Your task to perform on an android device: open app "Expedia: Hotels, Flights & Car" (install if not already installed) Image 0: 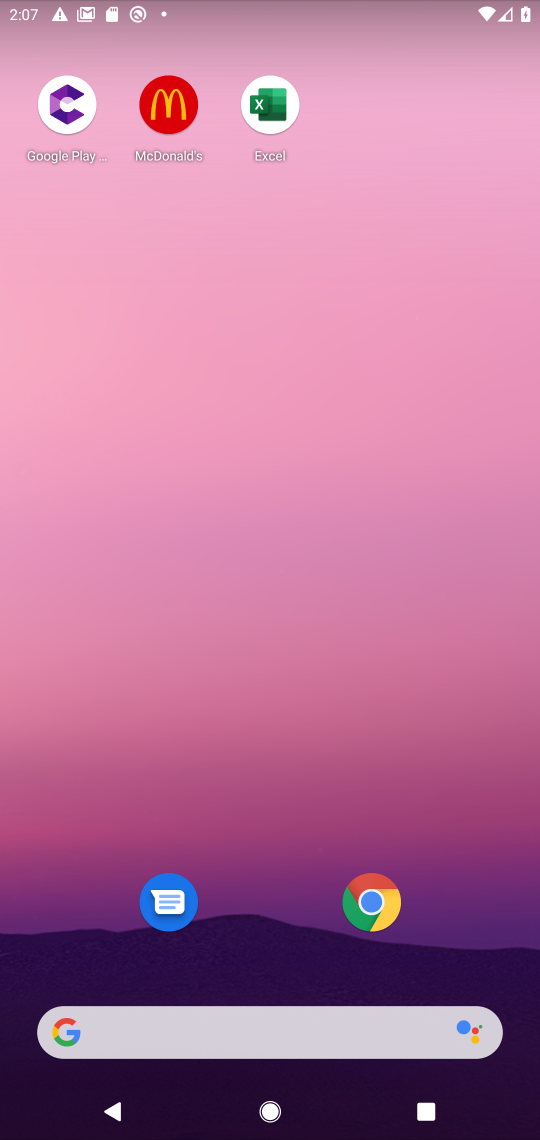
Step 0: drag from (237, 1025) to (237, 383)
Your task to perform on an android device: open app "Expedia: Hotels, Flights & Car" (install if not already installed) Image 1: 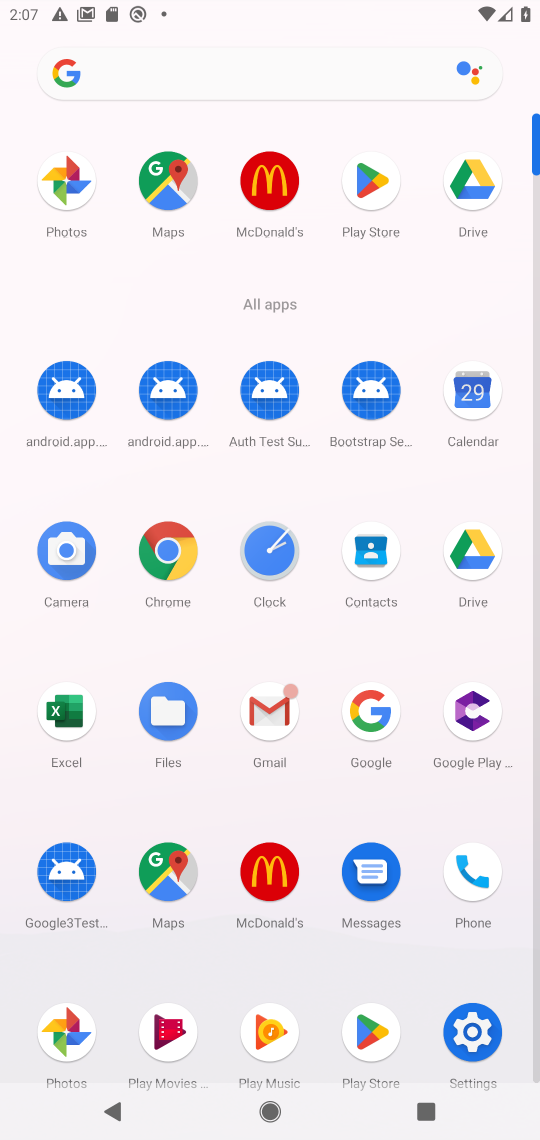
Step 1: click (368, 181)
Your task to perform on an android device: open app "Expedia: Hotels, Flights & Car" (install if not already installed) Image 2: 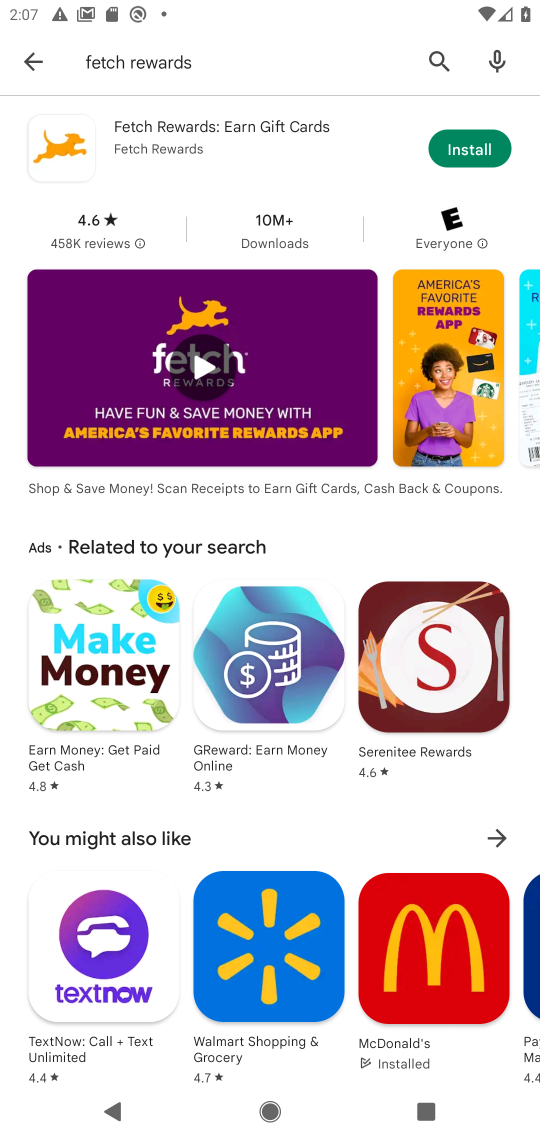
Step 2: click (439, 50)
Your task to perform on an android device: open app "Expedia: Hotels, Flights & Car" (install if not already installed) Image 3: 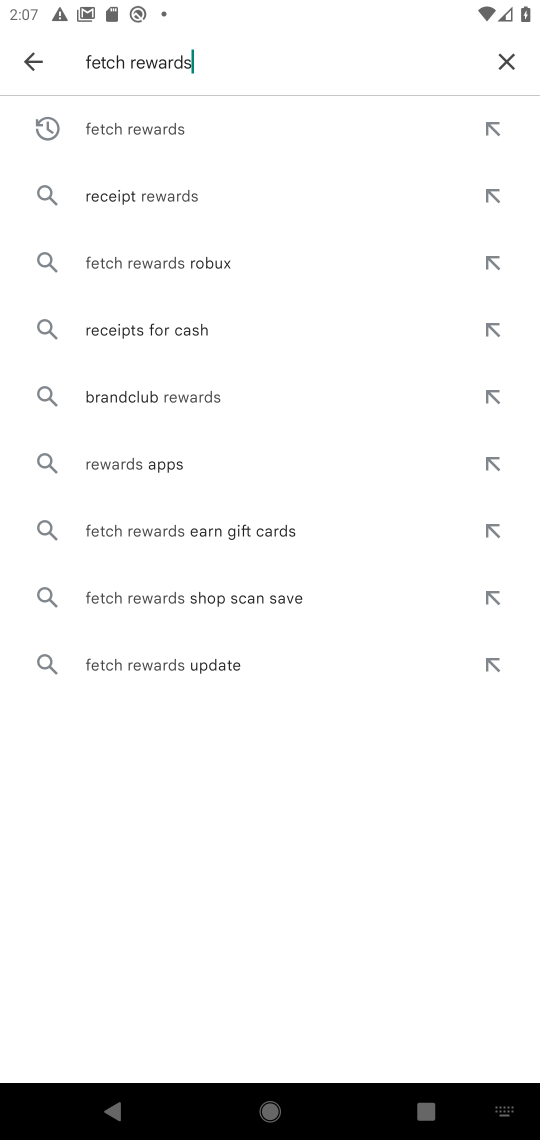
Step 3: type "Expedia: Hotels, Flights & Car"
Your task to perform on an android device: open app "Expedia: Hotels, Flights & Car" (install if not already installed) Image 4: 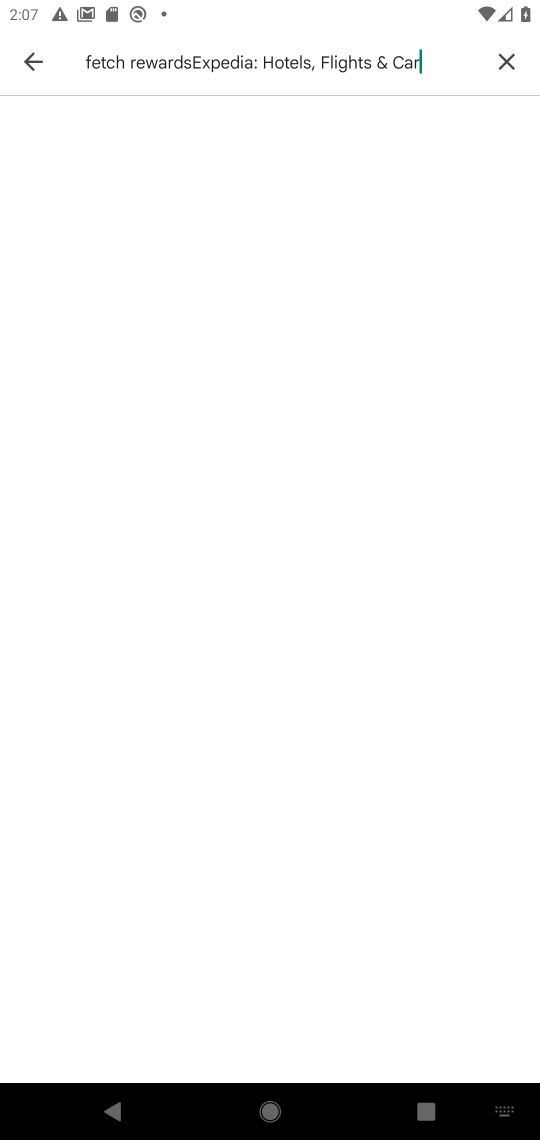
Step 4: click (237, 65)
Your task to perform on an android device: open app "Expedia: Hotels, Flights & Car" (install if not already installed) Image 5: 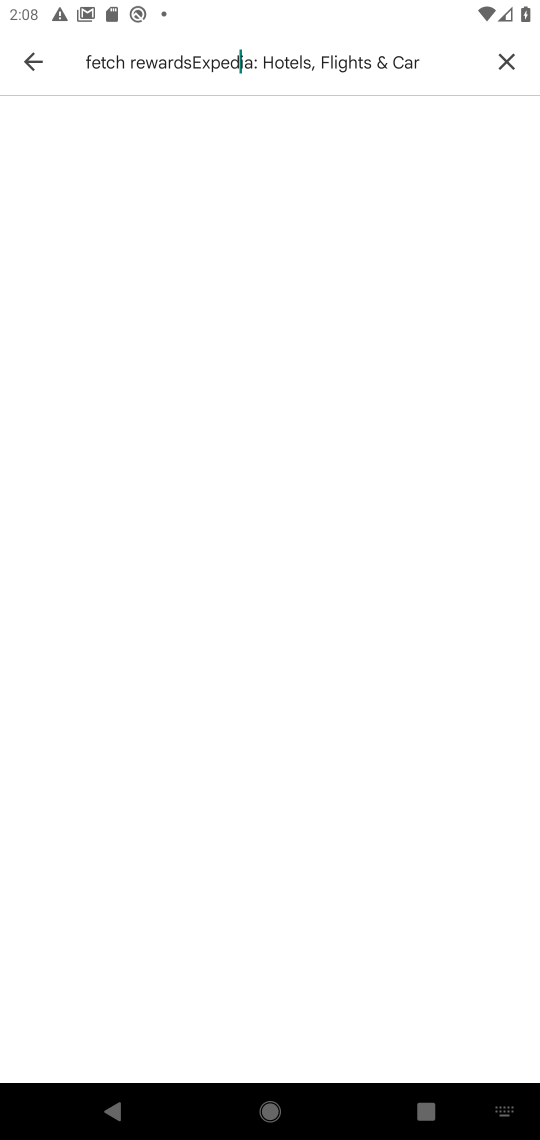
Step 5: click (511, 62)
Your task to perform on an android device: open app "Expedia: Hotels, Flights & Car" (install if not already installed) Image 6: 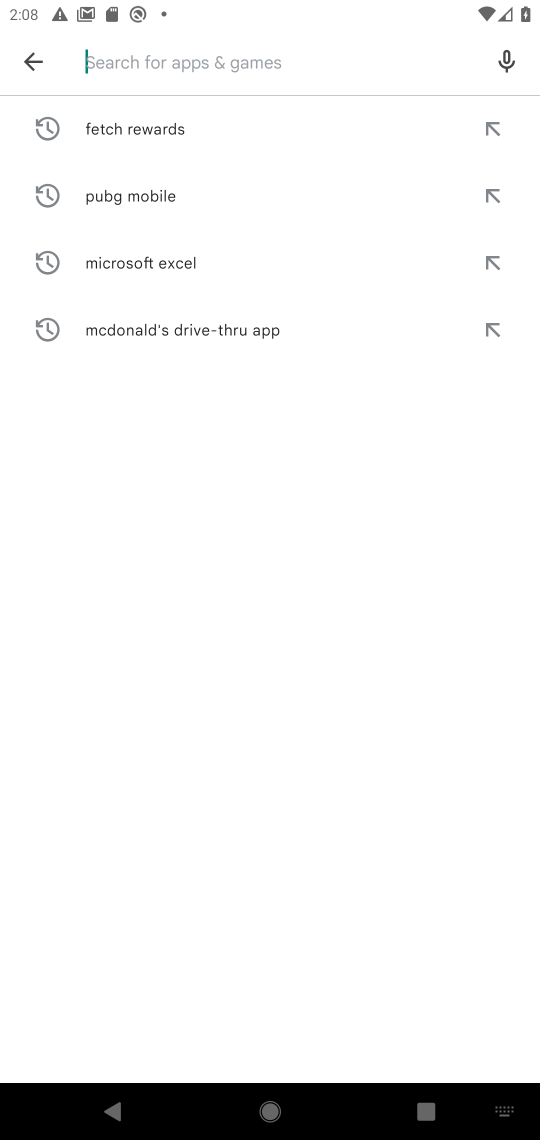
Step 6: type "Expedia: Hotels, Flights & Car"
Your task to perform on an android device: open app "Expedia: Hotels, Flights & Car" (install if not already installed) Image 7: 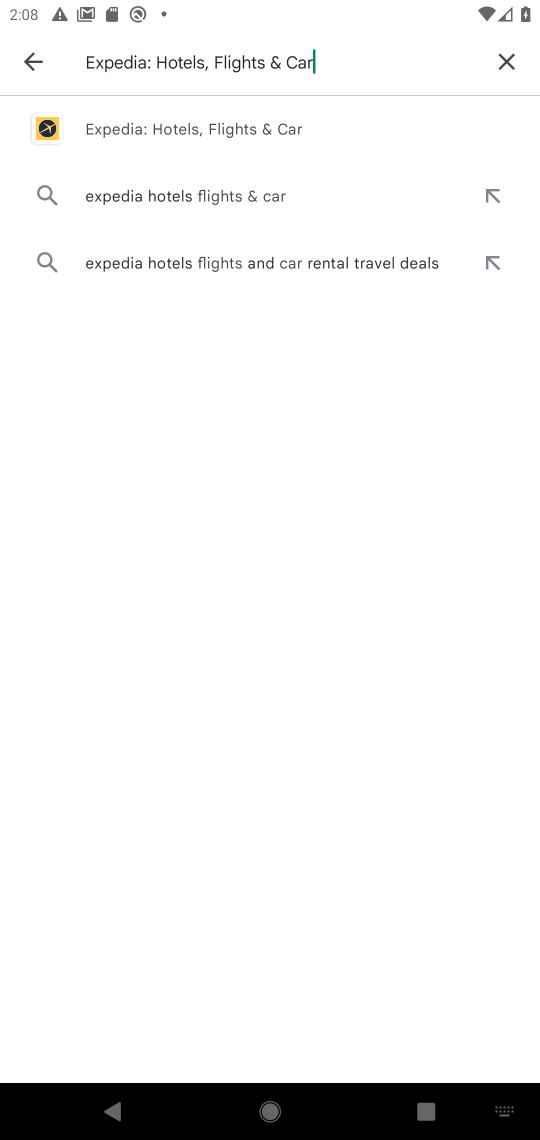
Step 7: click (120, 134)
Your task to perform on an android device: open app "Expedia: Hotels, Flights & Car" (install if not already installed) Image 8: 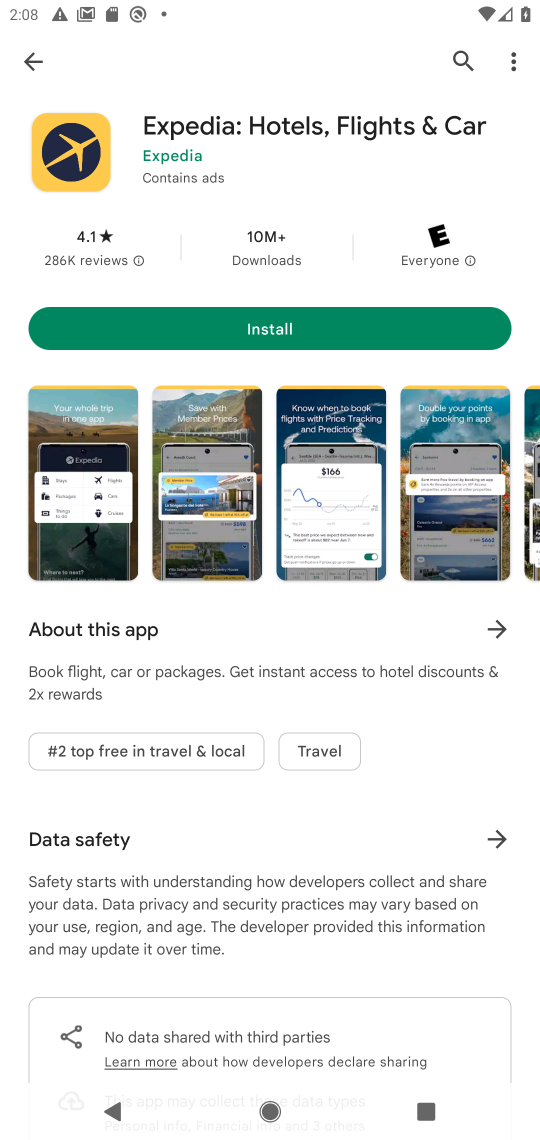
Step 8: click (293, 325)
Your task to perform on an android device: open app "Expedia: Hotels, Flights & Car" (install if not already installed) Image 9: 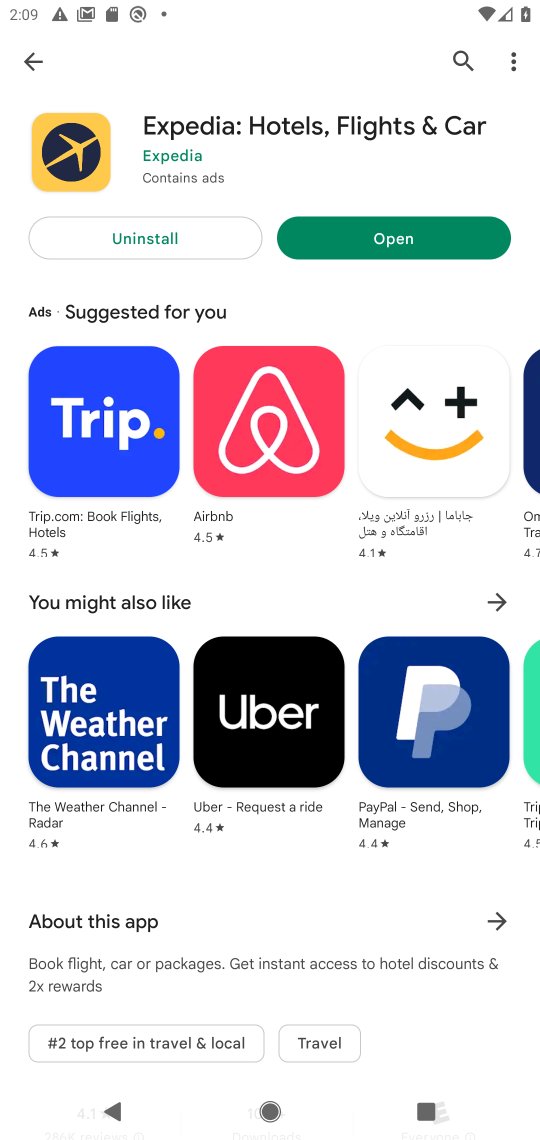
Step 9: click (376, 231)
Your task to perform on an android device: open app "Expedia: Hotels, Flights & Car" (install if not already installed) Image 10: 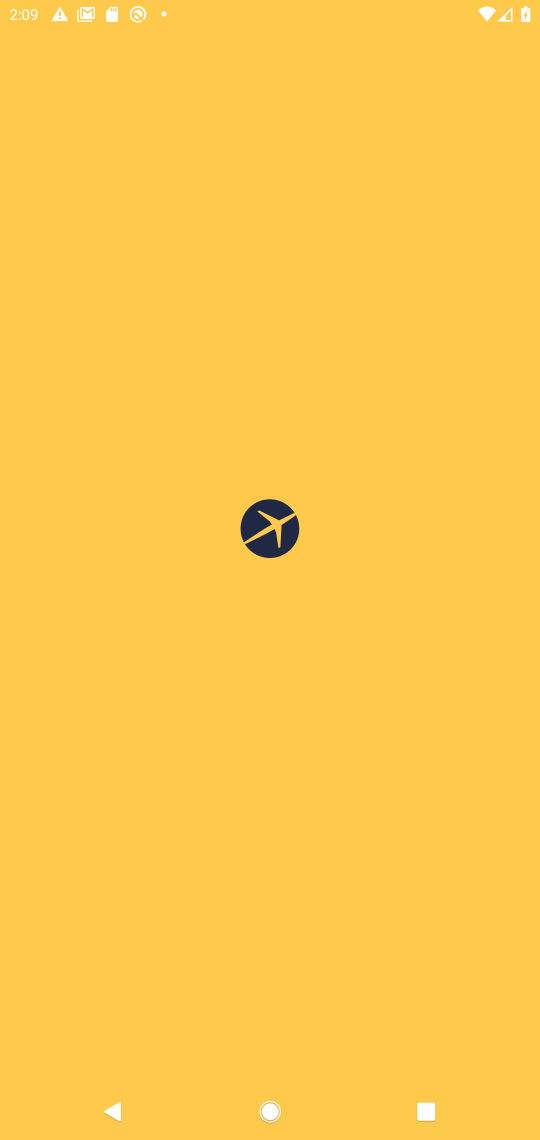
Step 10: task complete